Your task to perform on an android device: What is the recent news? Image 0: 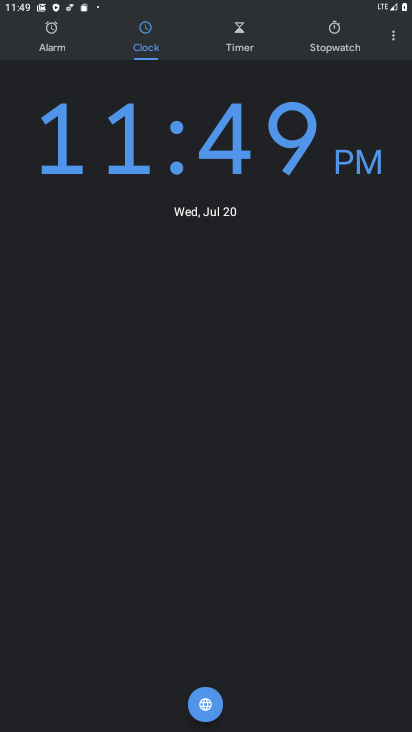
Step 0: press back button
Your task to perform on an android device: What is the recent news? Image 1: 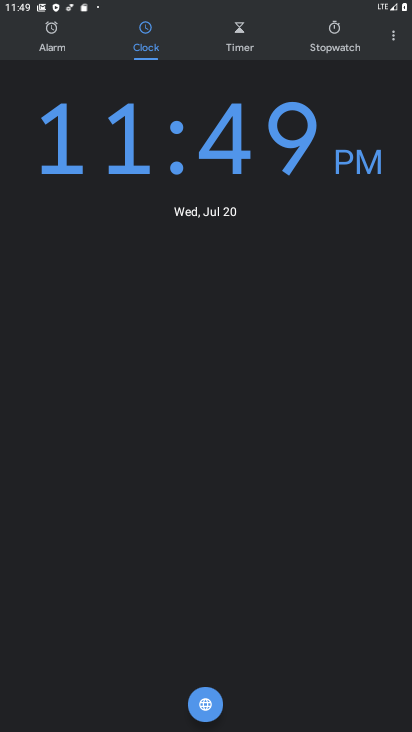
Step 1: press back button
Your task to perform on an android device: What is the recent news? Image 2: 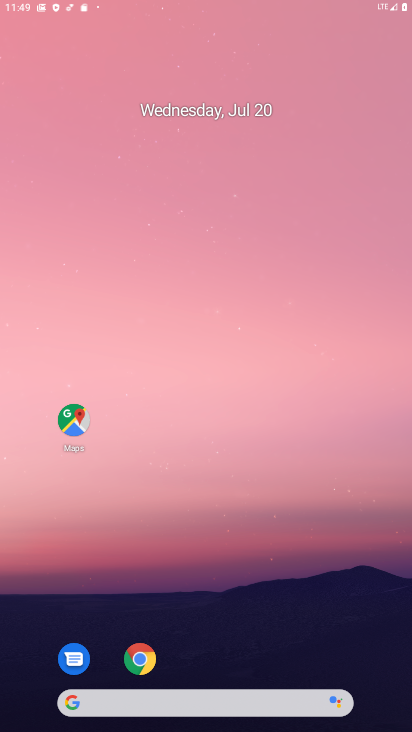
Step 2: press back button
Your task to perform on an android device: What is the recent news? Image 3: 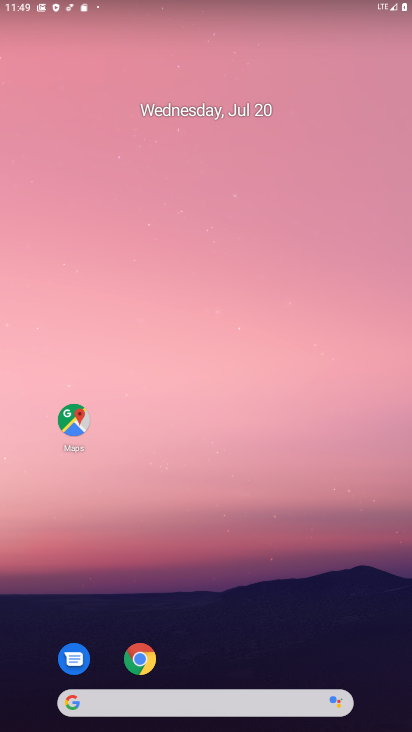
Step 3: drag from (234, 612) to (176, 92)
Your task to perform on an android device: What is the recent news? Image 4: 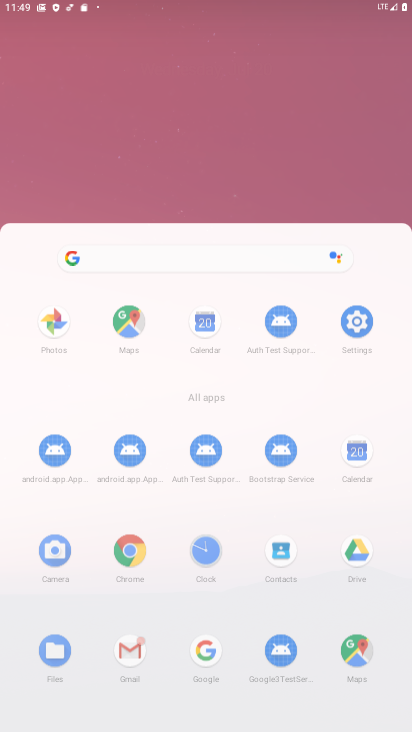
Step 4: drag from (223, 442) to (138, 184)
Your task to perform on an android device: What is the recent news? Image 5: 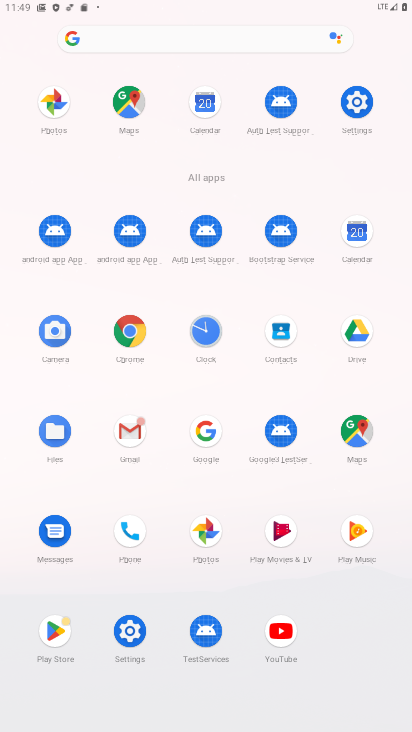
Step 5: click (133, 328)
Your task to perform on an android device: What is the recent news? Image 6: 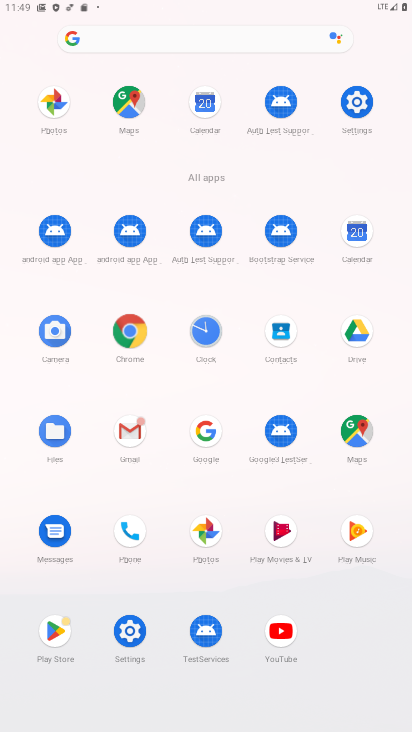
Step 6: click (133, 328)
Your task to perform on an android device: What is the recent news? Image 7: 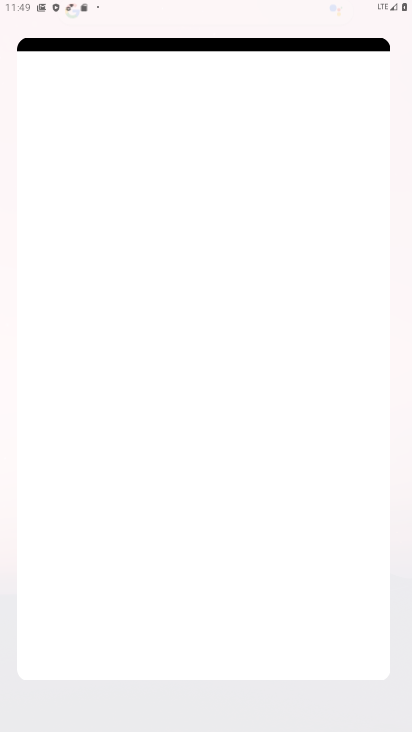
Step 7: click (136, 332)
Your task to perform on an android device: What is the recent news? Image 8: 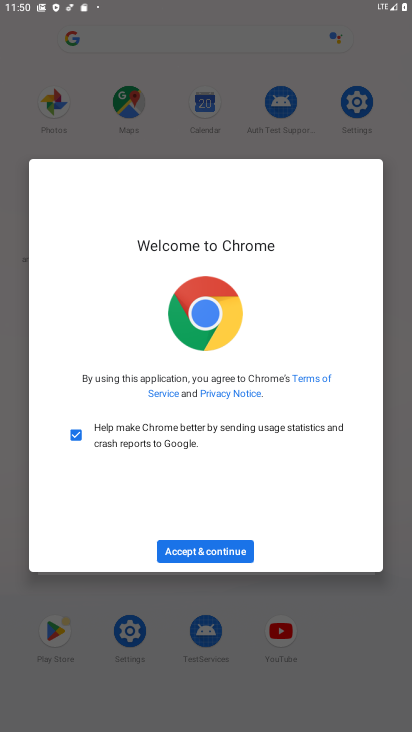
Step 8: click (224, 525)
Your task to perform on an android device: What is the recent news? Image 9: 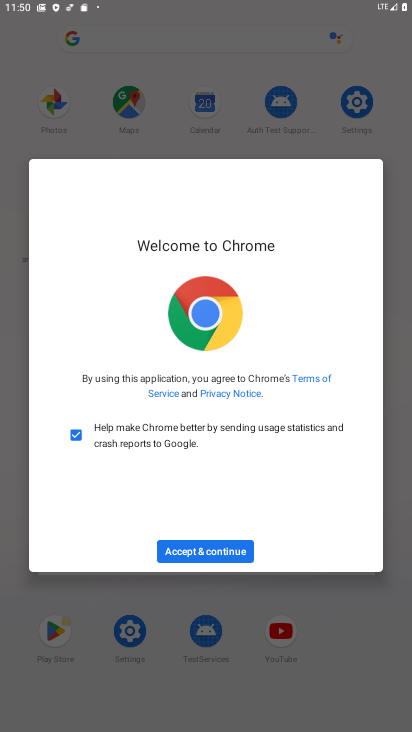
Step 9: click (214, 551)
Your task to perform on an android device: What is the recent news? Image 10: 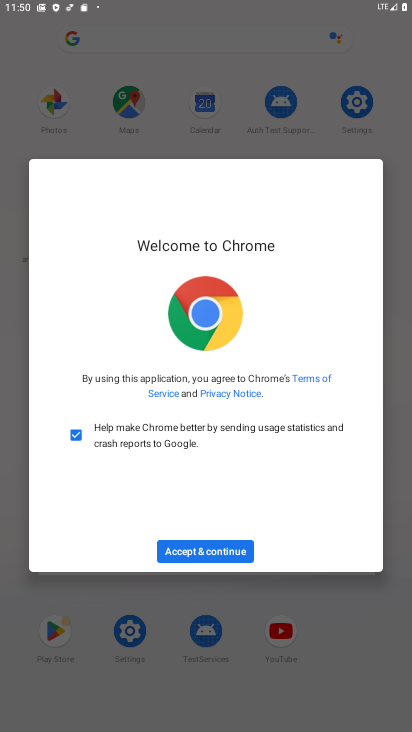
Step 10: click (214, 551)
Your task to perform on an android device: What is the recent news? Image 11: 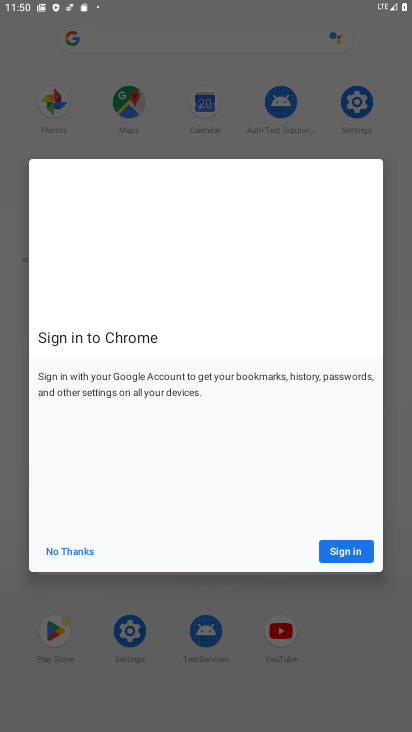
Step 11: click (214, 551)
Your task to perform on an android device: What is the recent news? Image 12: 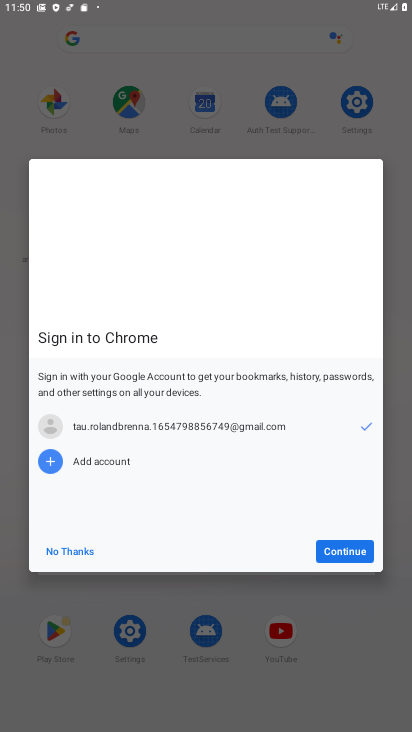
Step 12: click (214, 551)
Your task to perform on an android device: What is the recent news? Image 13: 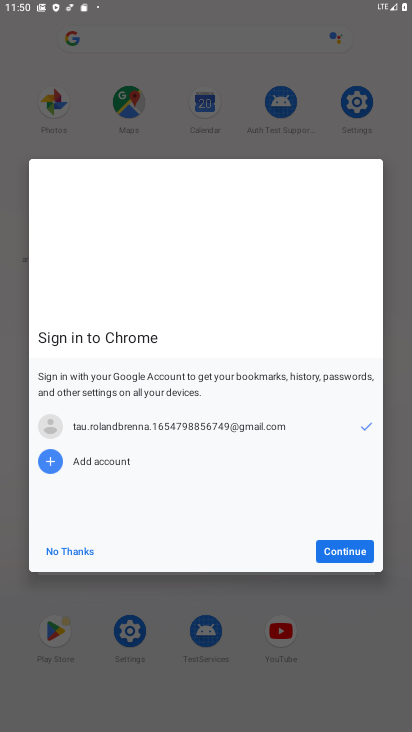
Step 13: click (346, 553)
Your task to perform on an android device: What is the recent news? Image 14: 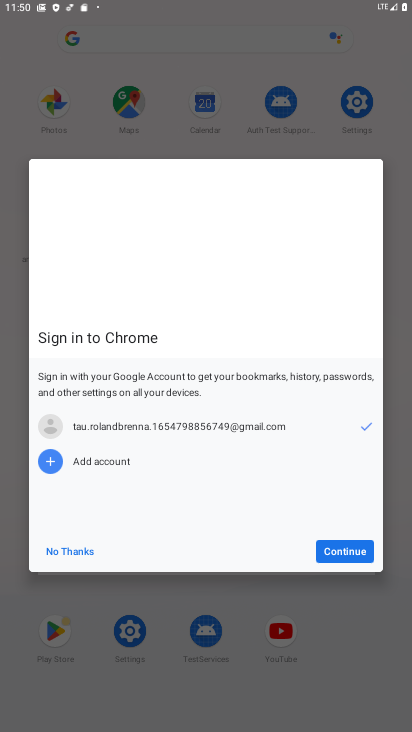
Step 14: click (349, 550)
Your task to perform on an android device: What is the recent news? Image 15: 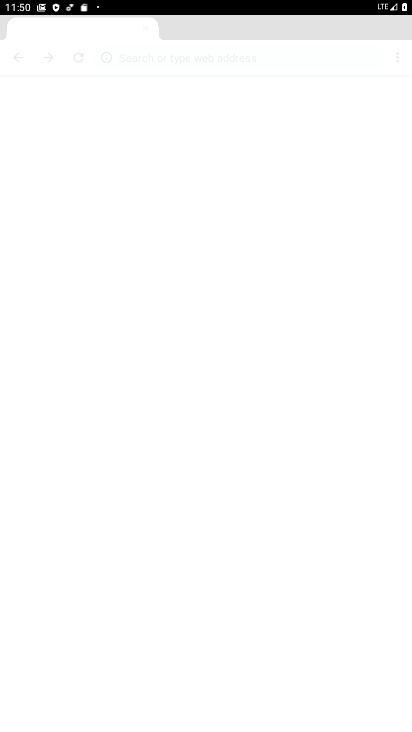
Step 15: click (340, 550)
Your task to perform on an android device: What is the recent news? Image 16: 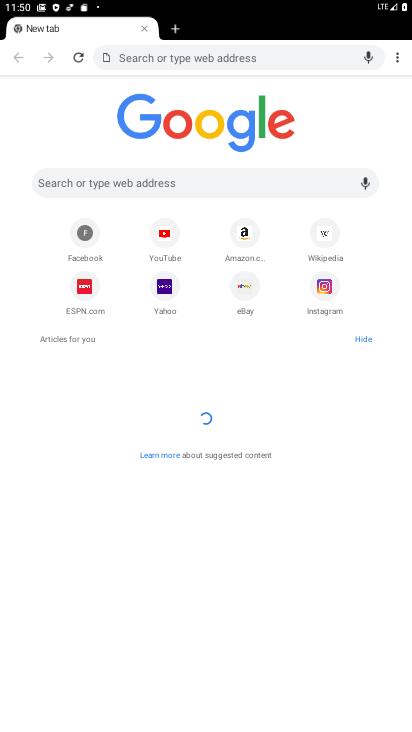
Step 16: task complete